Your task to perform on an android device: Open maps Image 0: 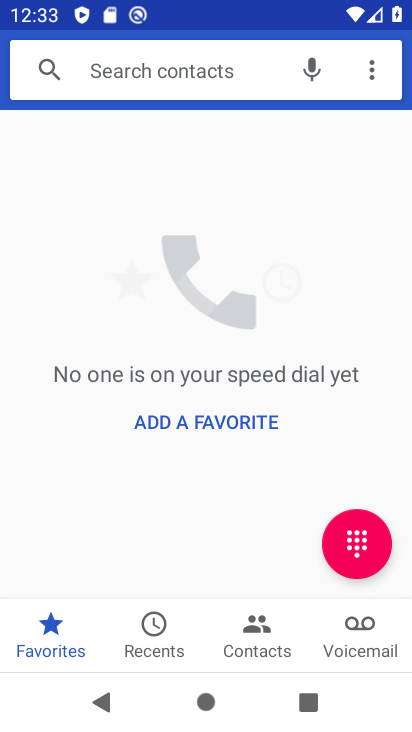
Step 0: press home button
Your task to perform on an android device: Open maps Image 1: 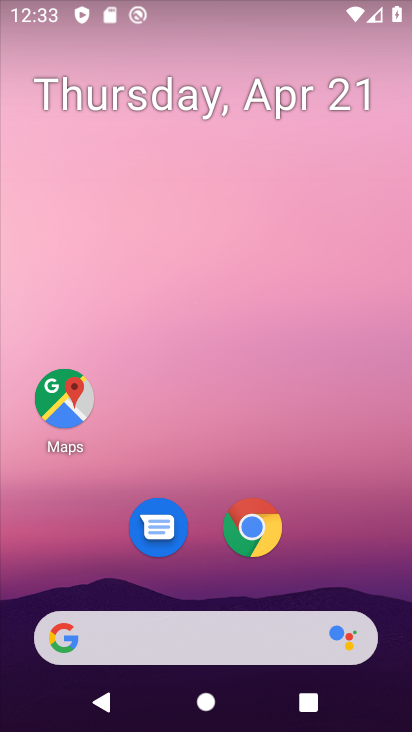
Step 1: drag from (342, 562) to (348, 154)
Your task to perform on an android device: Open maps Image 2: 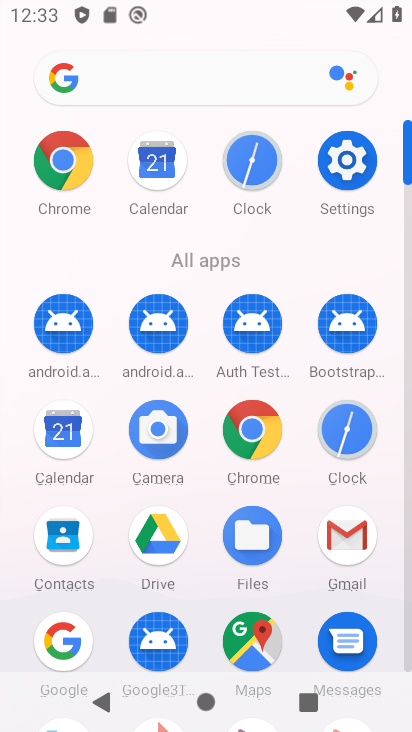
Step 2: drag from (293, 559) to (289, 325)
Your task to perform on an android device: Open maps Image 3: 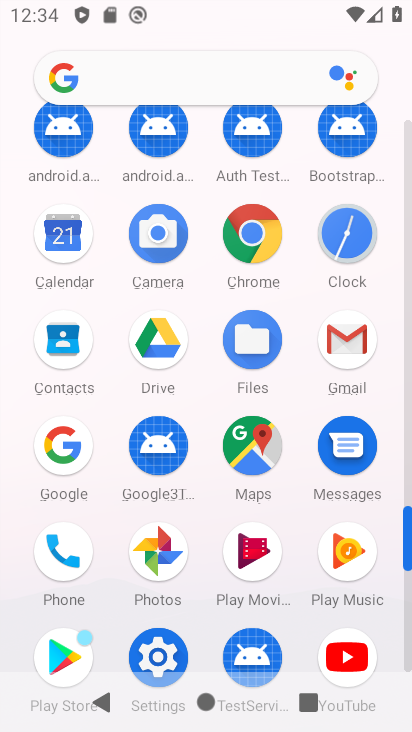
Step 3: click (244, 462)
Your task to perform on an android device: Open maps Image 4: 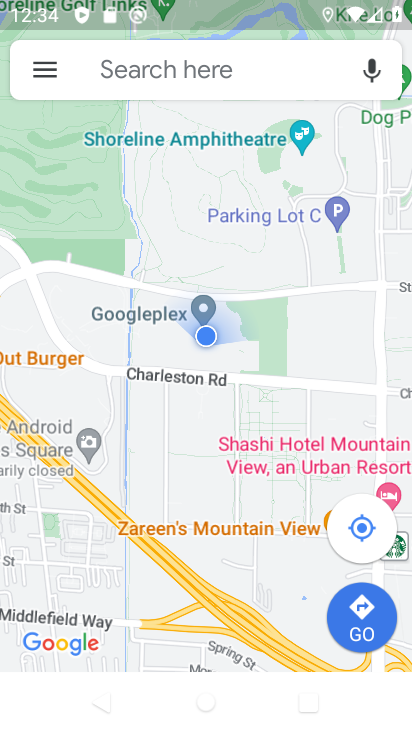
Step 4: task complete